Your task to perform on an android device: move a message to another label in the gmail app Image 0: 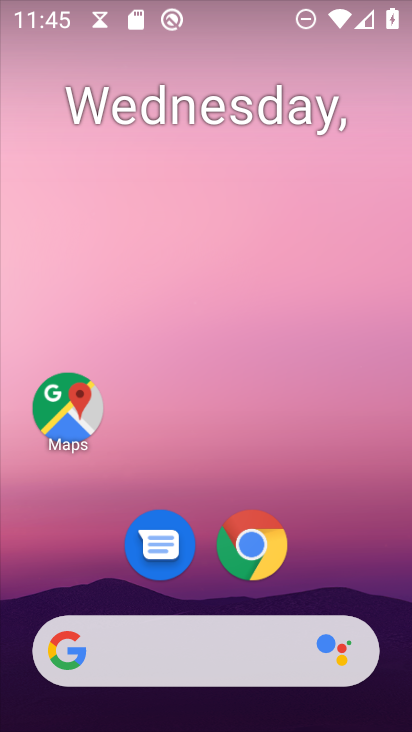
Step 0: drag from (291, 690) to (287, 224)
Your task to perform on an android device: move a message to another label in the gmail app Image 1: 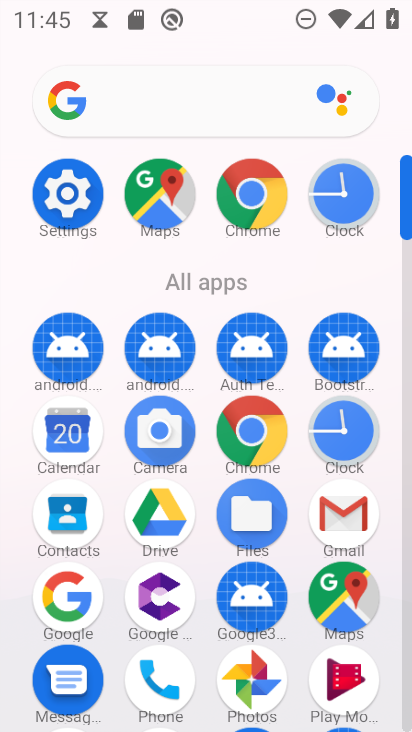
Step 1: click (332, 519)
Your task to perform on an android device: move a message to another label in the gmail app Image 2: 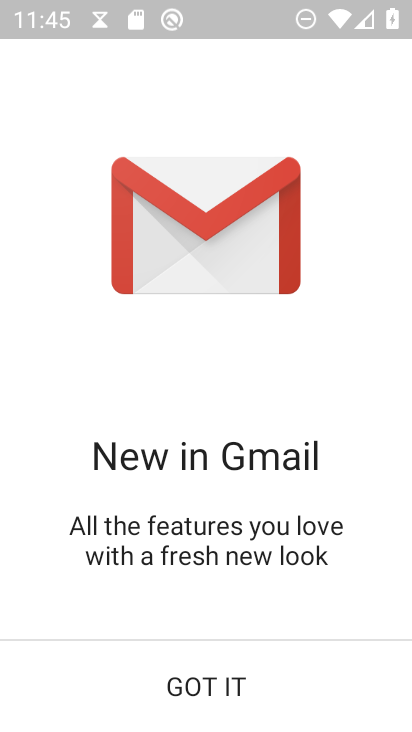
Step 2: click (224, 681)
Your task to perform on an android device: move a message to another label in the gmail app Image 3: 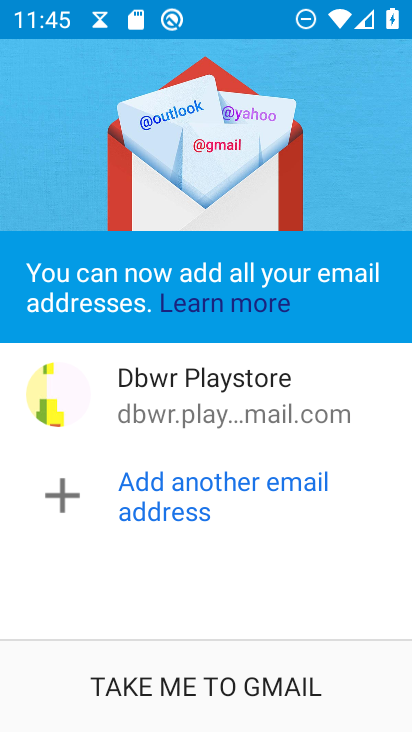
Step 3: click (225, 681)
Your task to perform on an android device: move a message to another label in the gmail app Image 4: 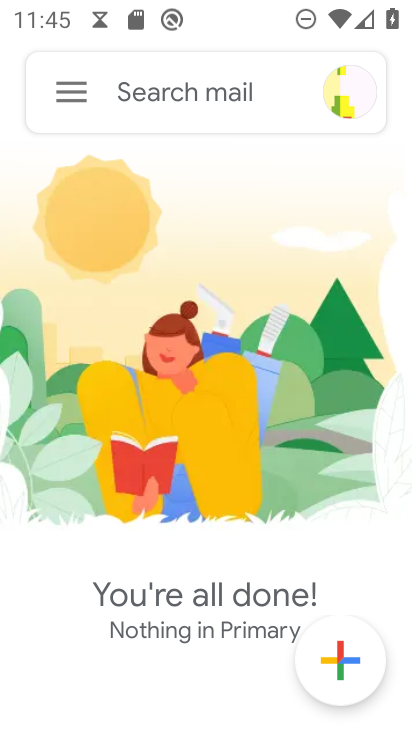
Step 4: click (87, 101)
Your task to perform on an android device: move a message to another label in the gmail app Image 5: 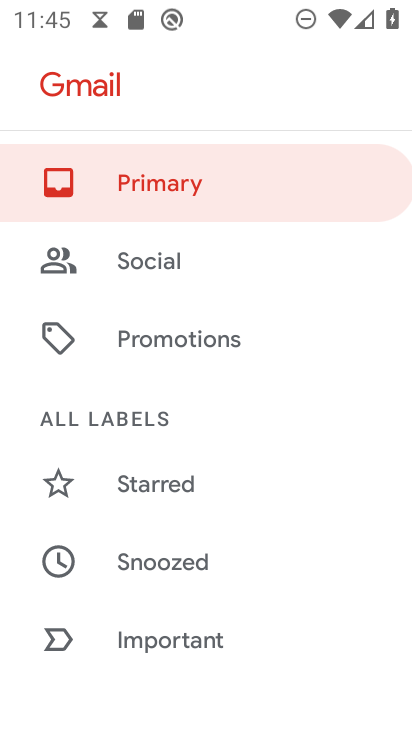
Step 5: drag from (131, 560) to (283, 288)
Your task to perform on an android device: move a message to another label in the gmail app Image 6: 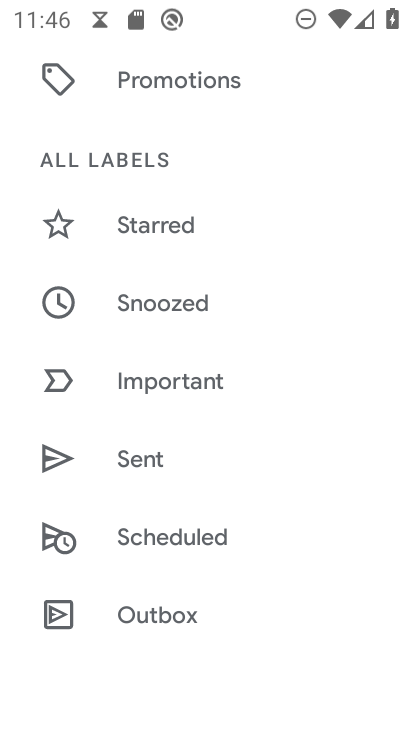
Step 6: drag from (224, 582) to (292, 334)
Your task to perform on an android device: move a message to another label in the gmail app Image 7: 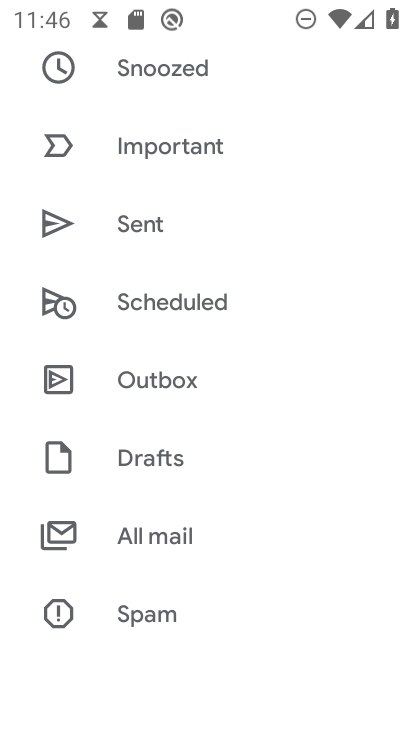
Step 7: drag from (197, 590) to (235, 381)
Your task to perform on an android device: move a message to another label in the gmail app Image 8: 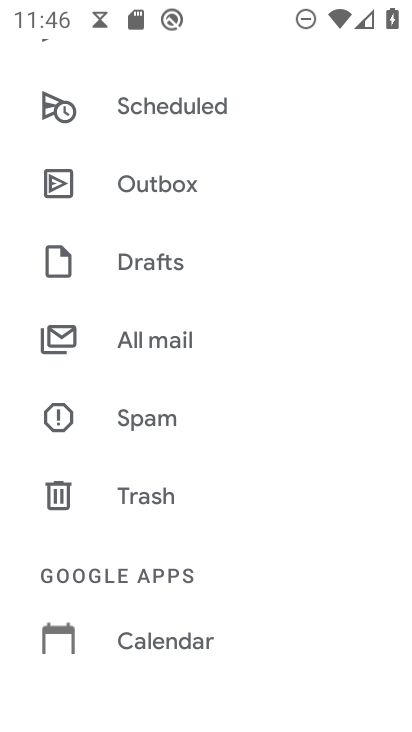
Step 8: drag from (165, 588) to (210, 352)
Your task to perform on an android device: move a message to another label in the gmail app Image 9: 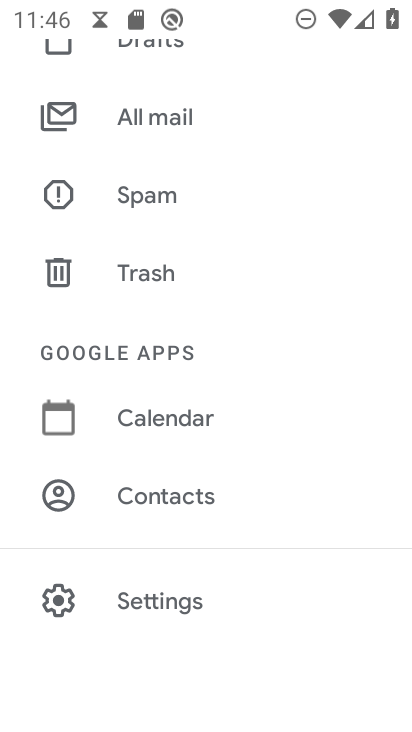
Step 9: click (148, 606)
Your task to perform on an android device: move a message to another label in the gmail app Image 10: 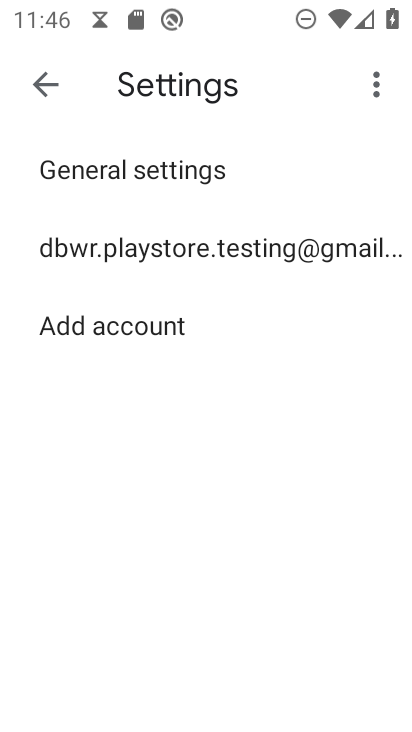
Step 10: click (298, 248)
Your task to perform on an android device: move a message to another label in the gmail app Image 11: 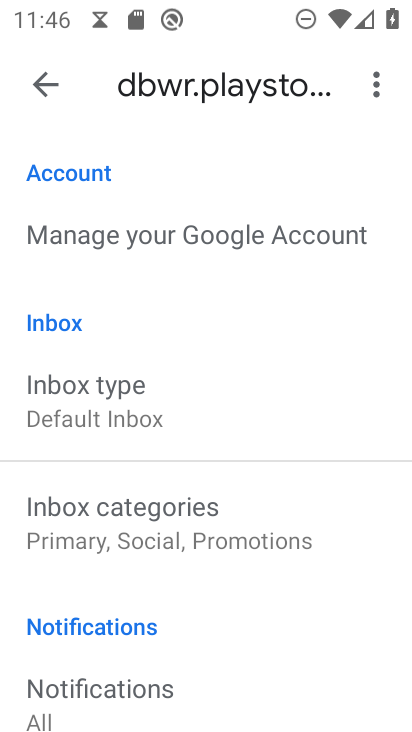
Step 11: drag from (148, 604) to (184, 424)
Your task to perform on an android device: move a message to another label in the gmail app Image 12: 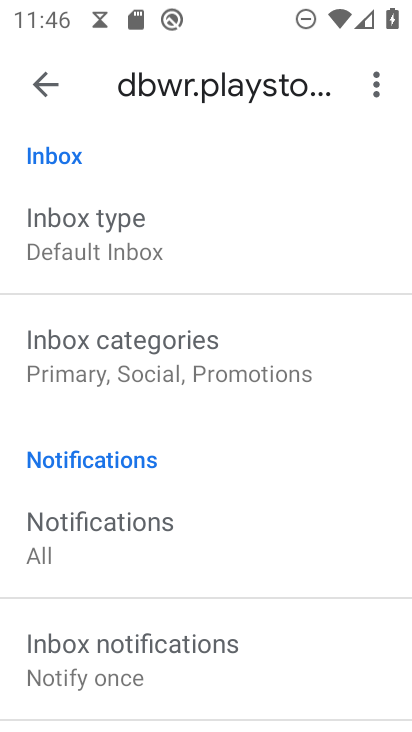
Step 12: drag from (192, 604) to (217, 342)
Your task to perform on an android device: move a message to another label in the gmail app Image 13: 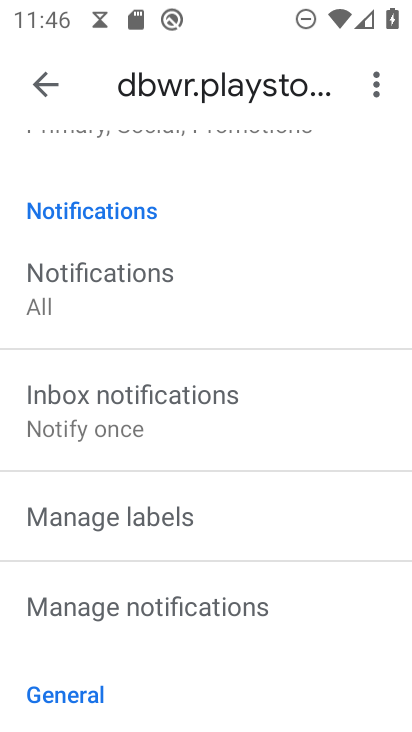
Step 13: click (94, 516)
Your task to perform on an android device: move a message to another label in the gmail app Image 14: 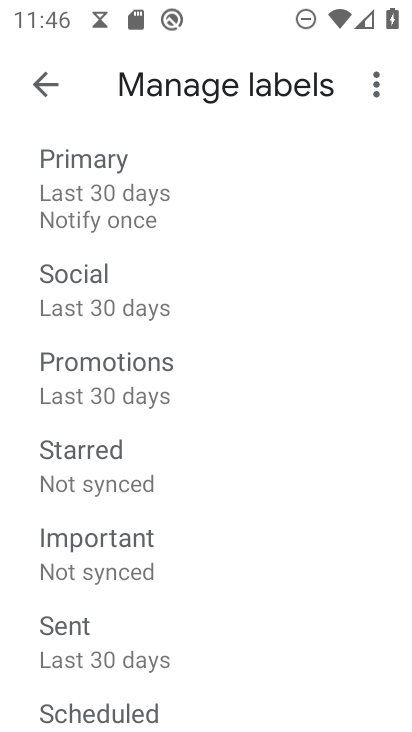
Step 14: click (109, 464)
Your task to perform on an android device: move a message to another label in the gmail app Image 15: 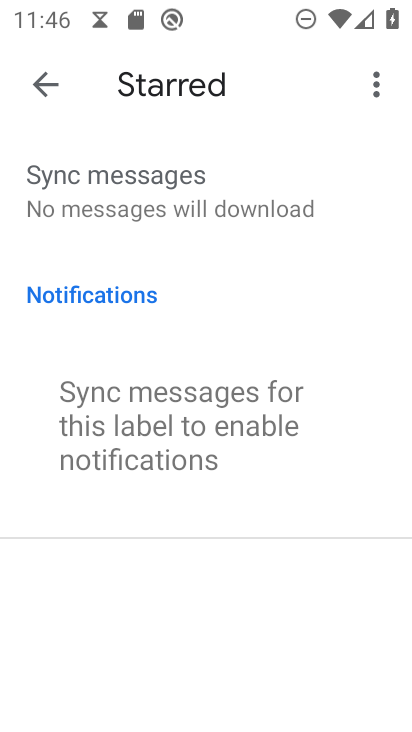
Step 15: task complete